Your task to perform on an android device: empty trash in the gmail app Image 0: 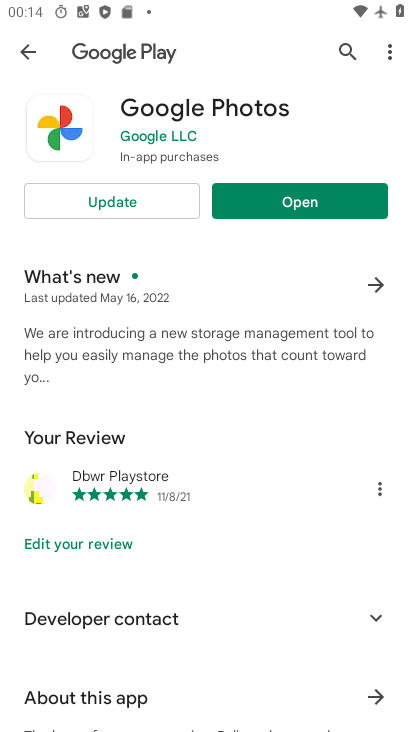
Step 0: press home button
Your task to perform on an android device: empty trash in the gmail app Image 1: 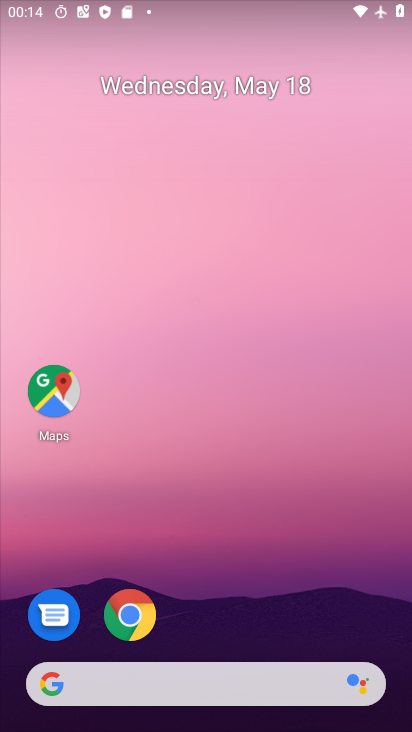
Step 1: drag from (211, 630) to (206, 130)
Your task to perform on an android device: empty trash in the gmail app Image 2: 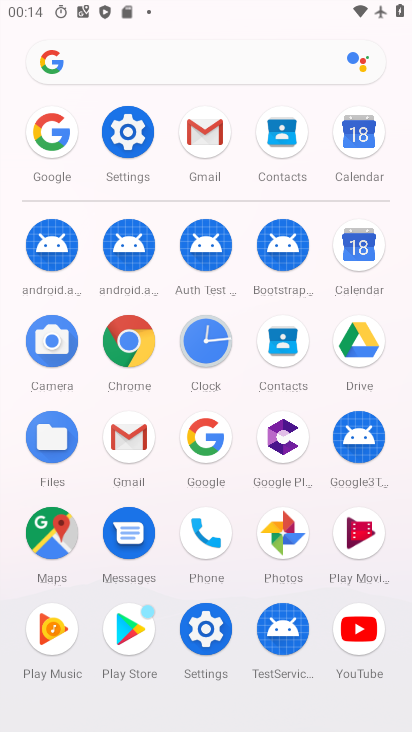
Step 2: click (206, 130)
Your task to perform on an android device: empty trash in the gmail app Image 3: 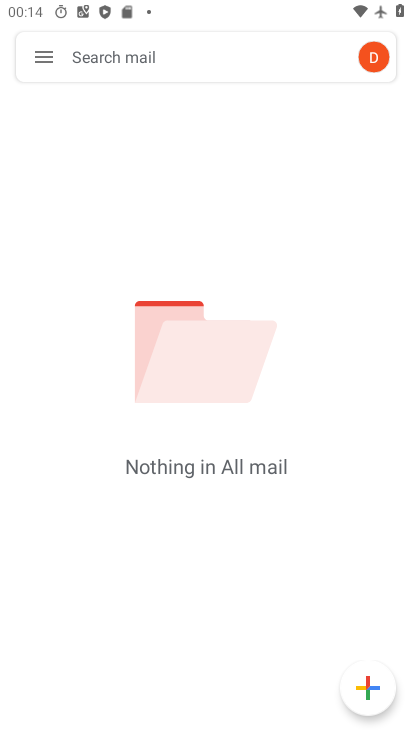
Step 3: click (49, 58)
Your task to perform on an android device: empty trash in the gmail app Image 4: 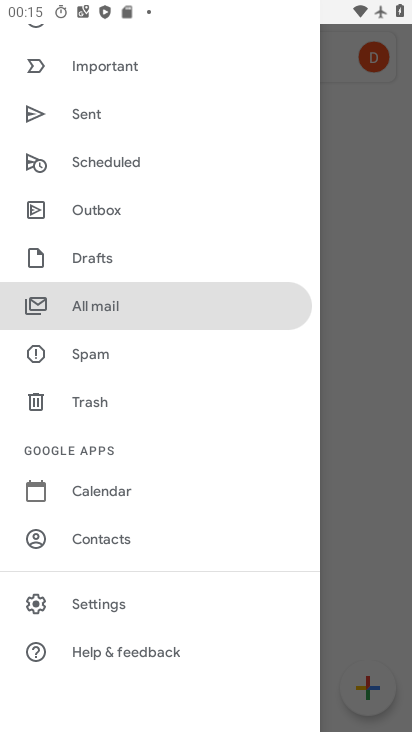
Step 4: click (119, 398)
Your task to perform on an android device: empty trash in the gmail app Image 5: 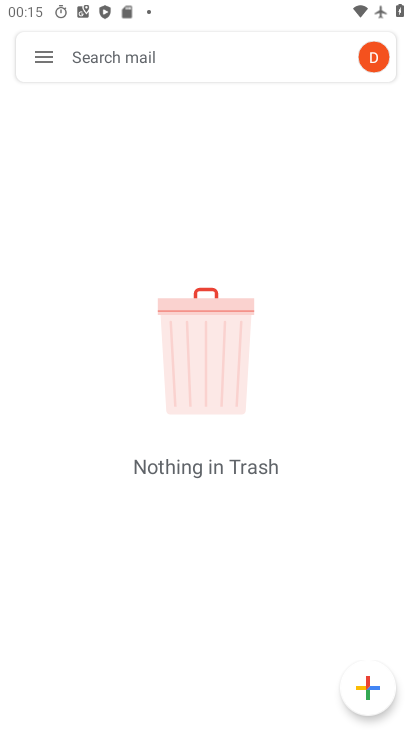
Step 5: task complete